Your task to perform on an android device: open app "Clock" (install if not already installed) Image 0: 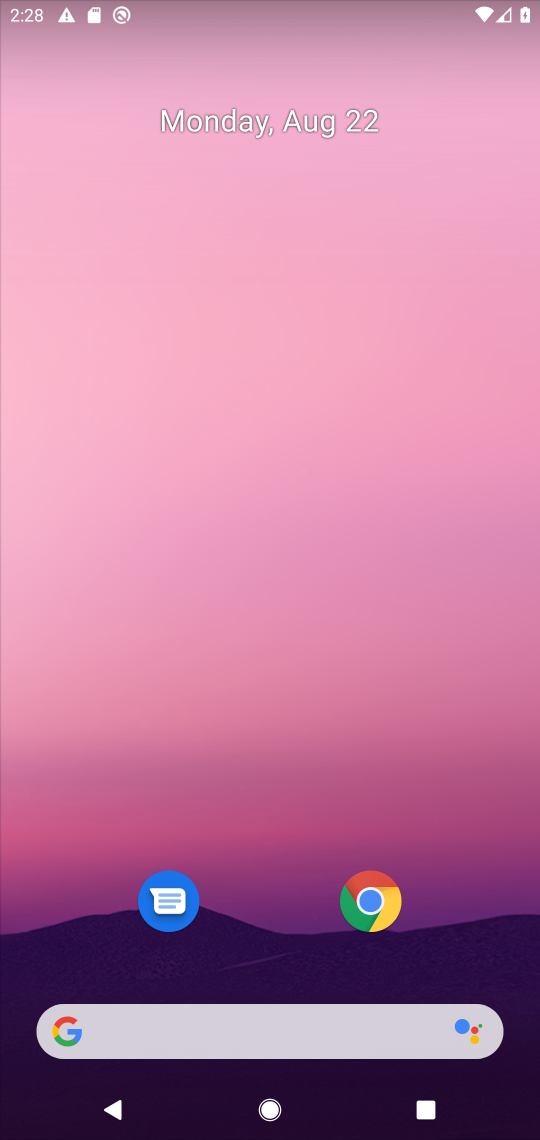
Step 0: drag from (520, 999) to (456, 157)
Your task to perform on an android device: open app "Clock" (install if not already installed) Image 1: 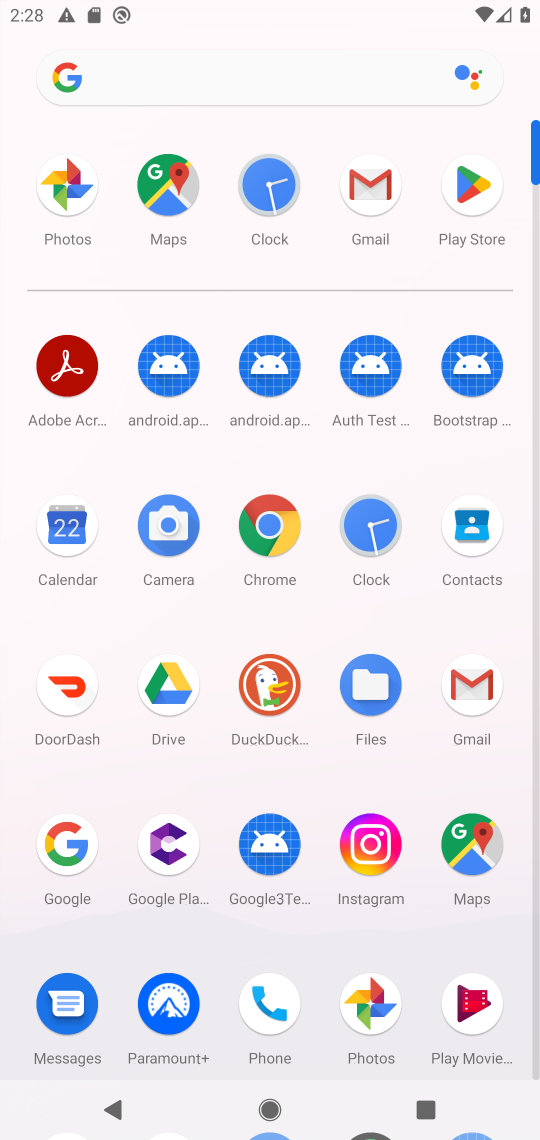
Step 1: drag from (305, 938) to (304, 432)
Your task to perform on an android device: open app "Clock" (install if not already installed) Image 2: 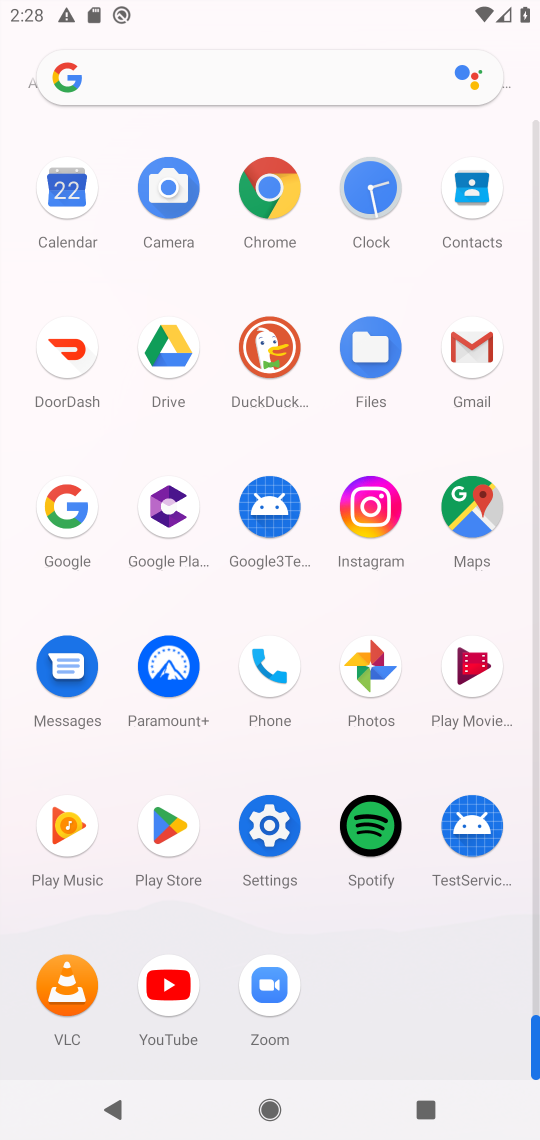
Step 2: click (168, 824)
Your task to perform on an android device: open app "Clock" (install if not already installed) Image 3: 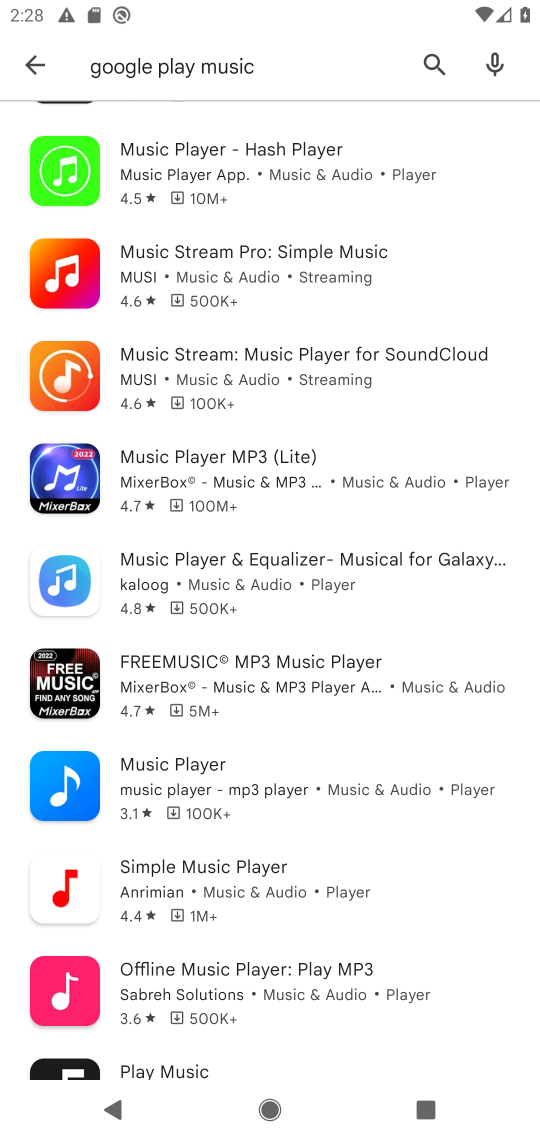
Step 3: click (435, 67)
Your task to perform on an android device: open app "Clock" (install if not already installed) Image 4: 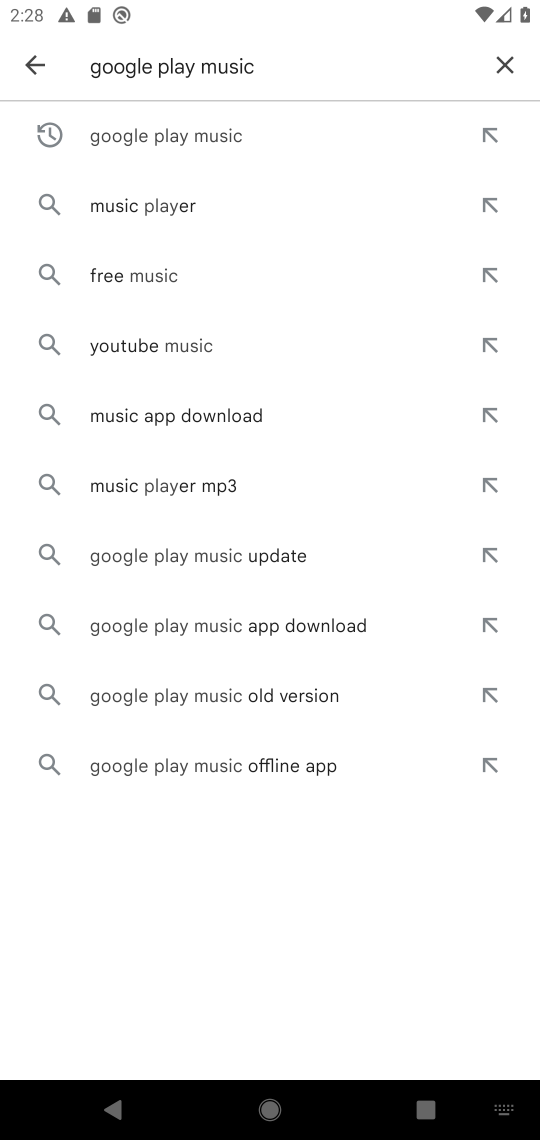
Step 4: click (504, 64)
Your task to perform on an android device: open app "Clock" (install if not already installed) Image 5: 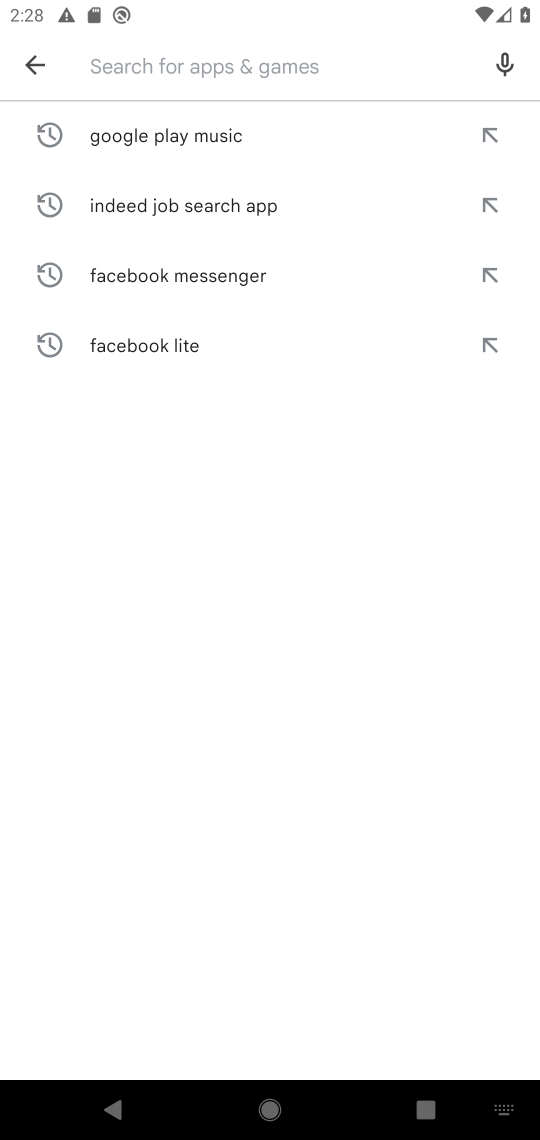
Step 5: type "Clock"
Your task to perform on an android device: open app "Clock" (install if not already installed) Image 6: 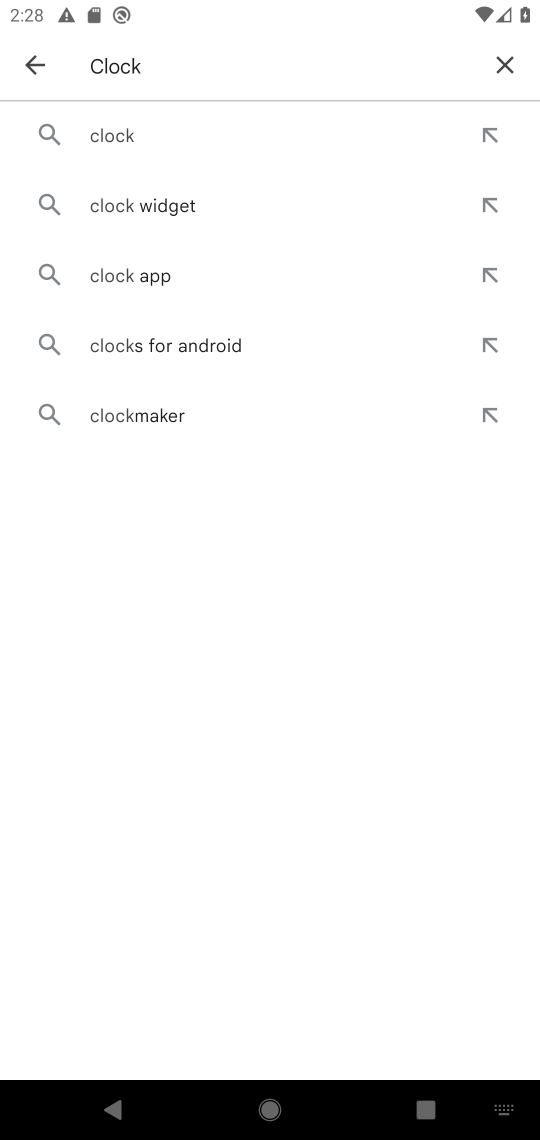
Step 6: click (112, 139)
Your task to perform on an android device: open app "Clock" (install if not already installed) Image 7: 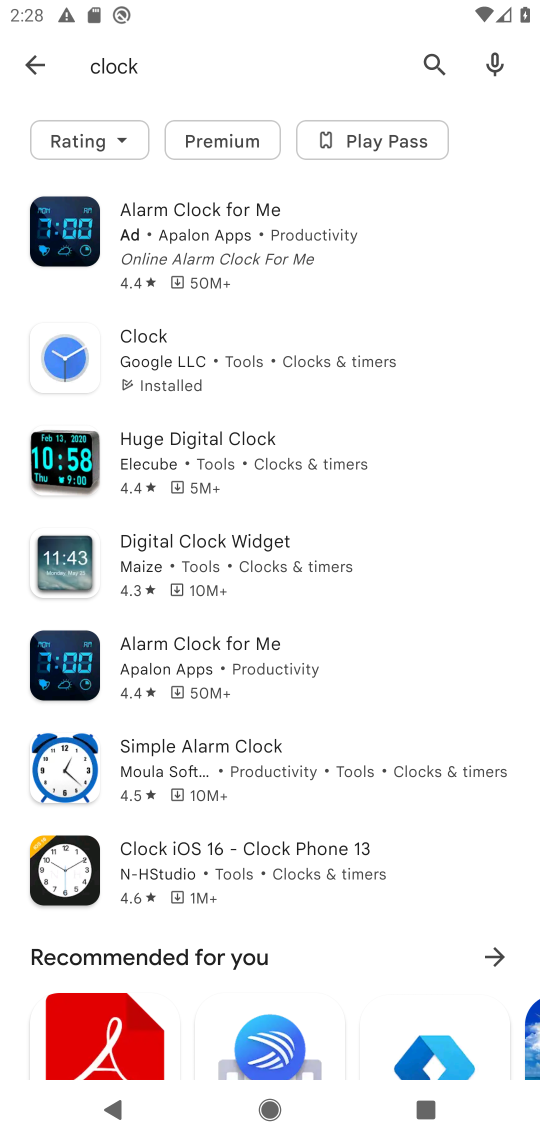
Step 7: click (136, 345)
Your task to perform on an android device: open app "Clock" (install if not already installed) Image 8: 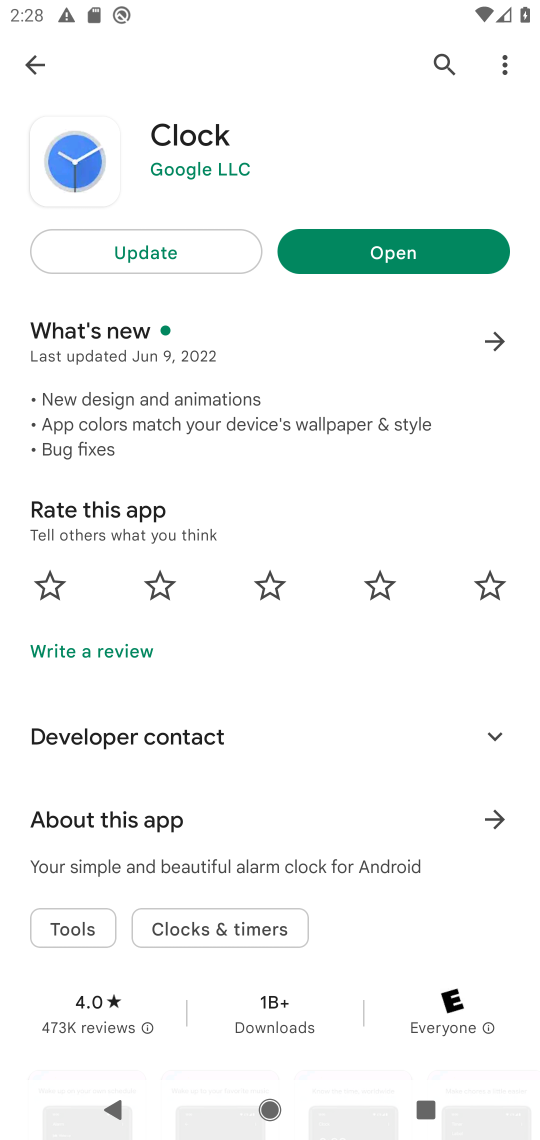
Step 8: click (394, 259)
Your task to perform on an android device: open app "Clock" (install if not already installed) Image 9: 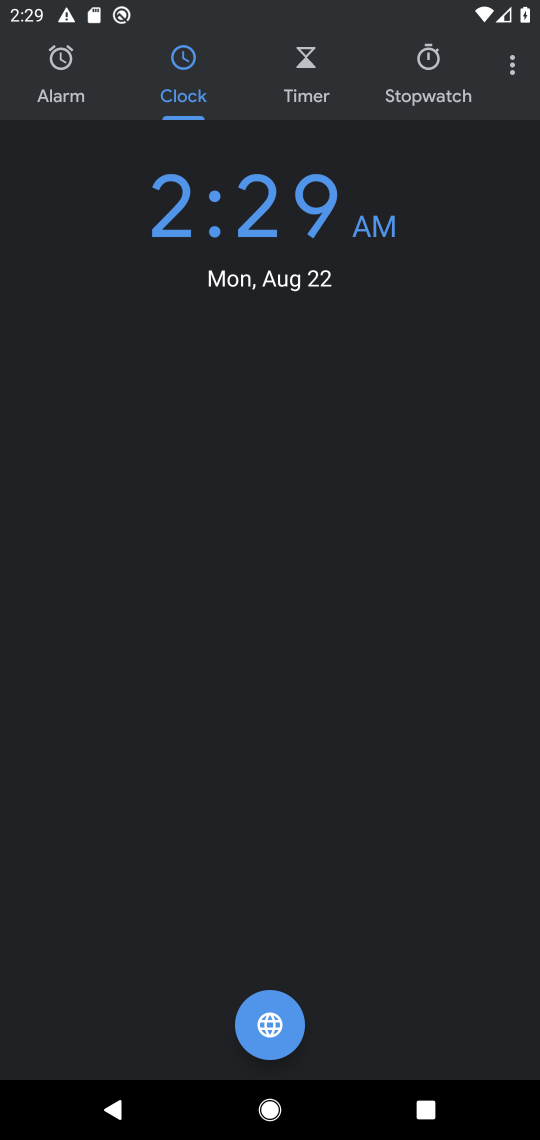
Step 9: task complete